Your task to perform on an android device: turn on priority inbox in the gmail app Image 0: 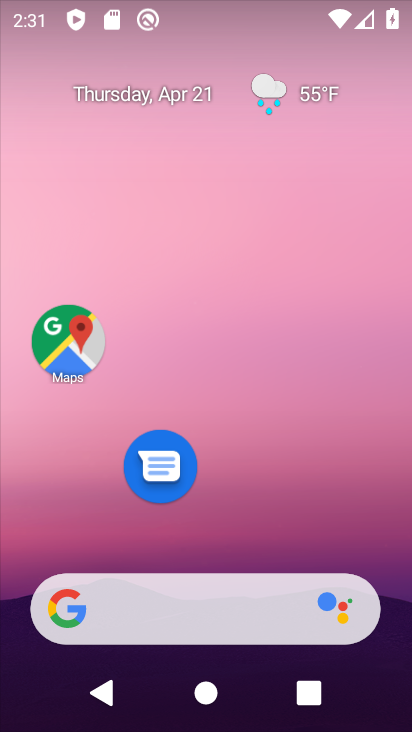
Step 0: drag from (306, 544) to (269, 64)
Your task to perform on an android device: turn on priority inbox in the gmail app Image 1: 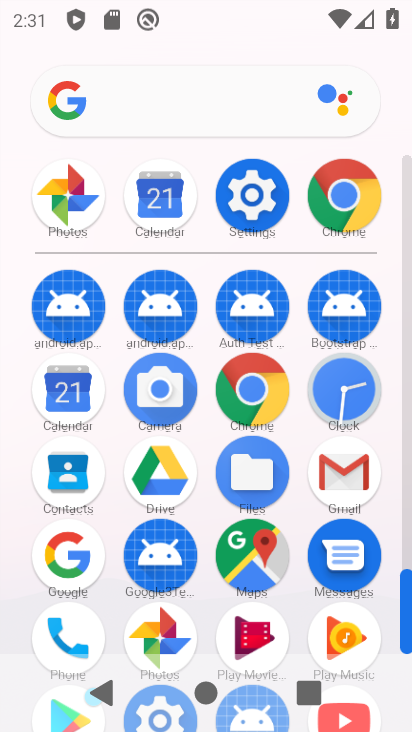
Step 1: click (350, 477)
Your task to perform on an android device: turn on priority inbox in the gmail app Image 2: 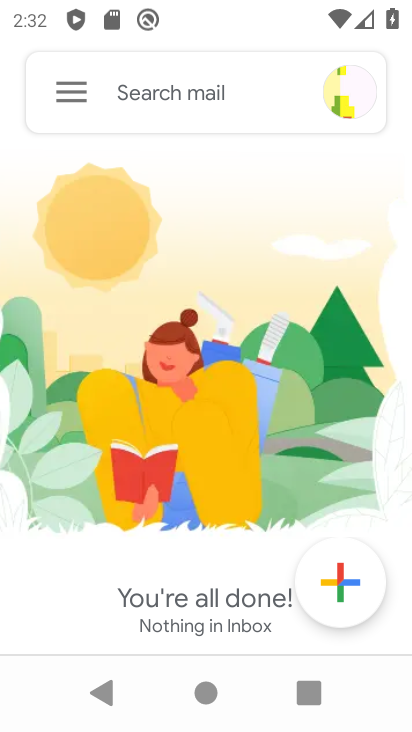
Step 2: click (55, 95)
Your task to perform on an android device: turn on priority inbox in the gmail app Image 3: 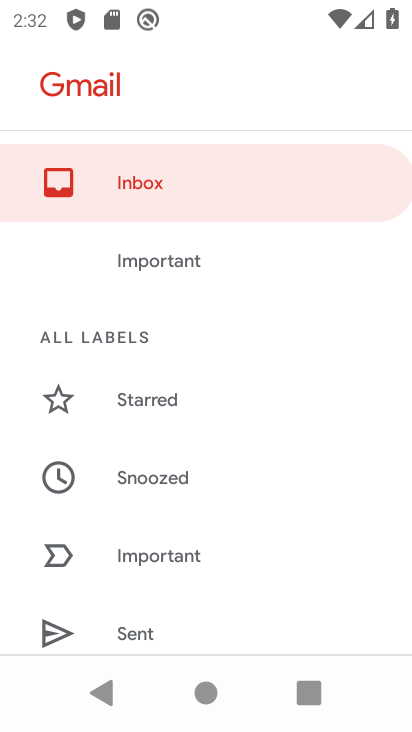
Step 3: drag from (230, 613) to (194, 66)
Your task to perform on an android device: turn on priority inbox in the gmail app Image 4: 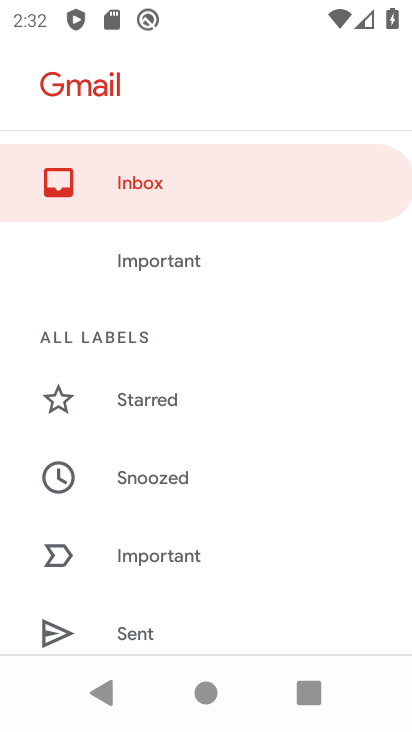
Step 4: drag from (265, 610) to (267, 199)
Your task to perform on an android device: turn on priority inbox in the gmail app Image 5: 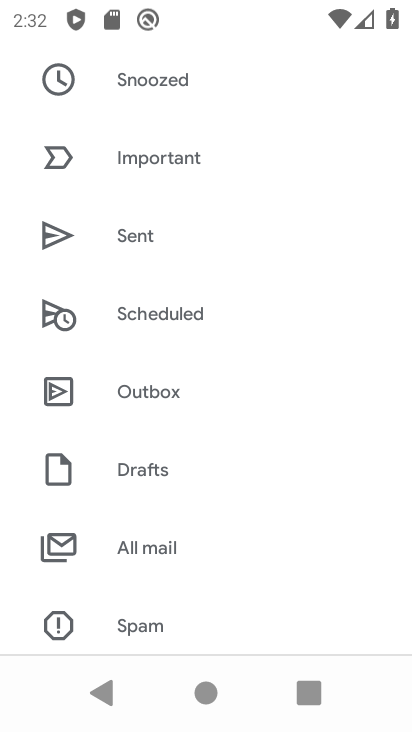
Step 5: drag from (283, 626) to (277, 72)
Your task to perform on an android device: turn on priority inbox in the gmail app Image 6: 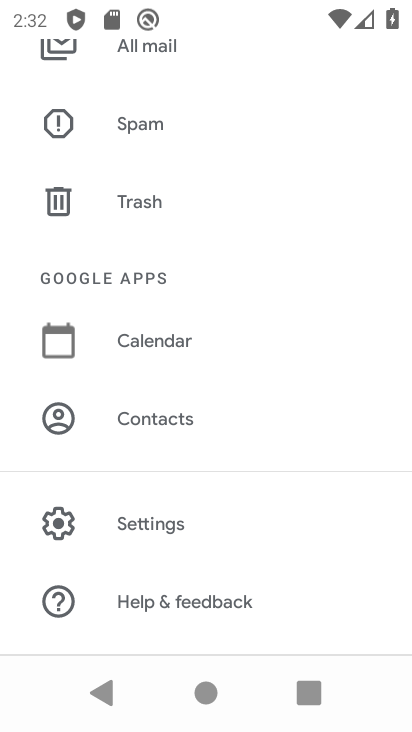
Step 6: click (146, 525)
Your task to perform on an android device: turn on priority inbox in the gmail app Image 7: 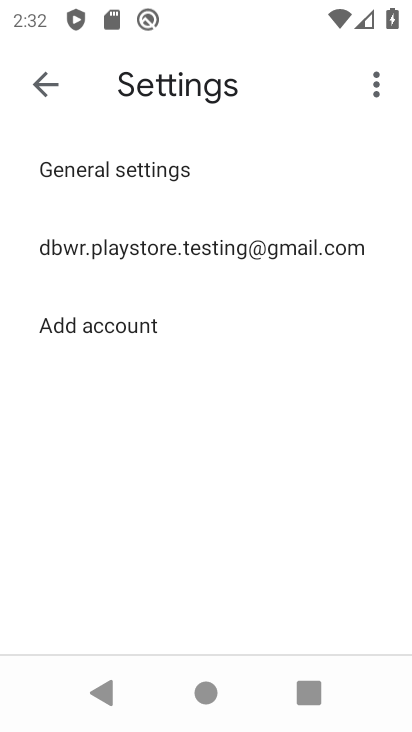
Step 7: click (137, 233)
Your task to perform on an android device: turn on priority inbox in the gmail app Image 8: 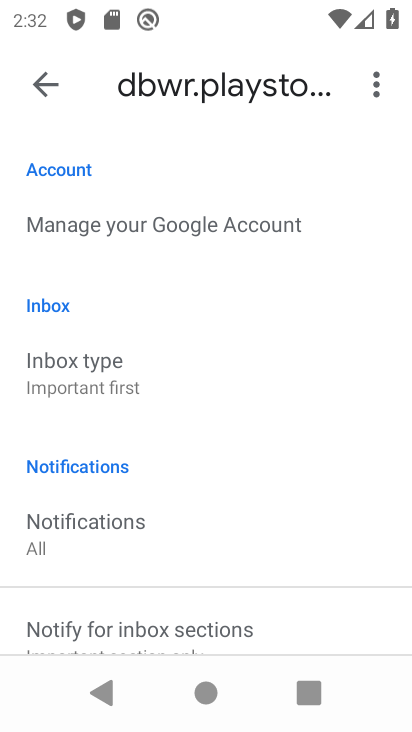
Step 8: click (106, 376)
Your task to perform on an android device: turn on priority inbox in the gmail app Image 9: 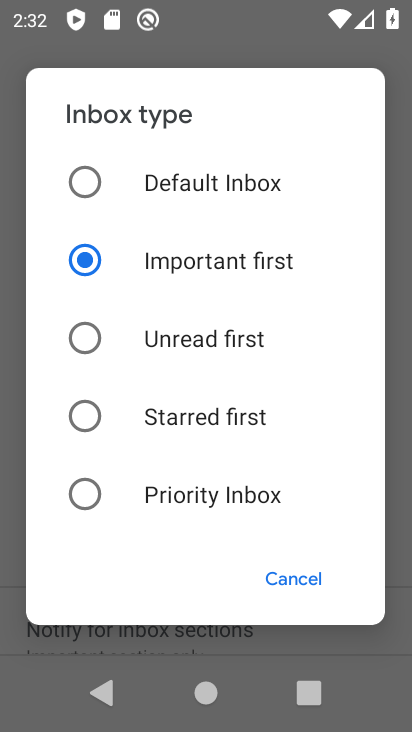
Step 9: click (93, 493)
Your task to perform on an android device: turn on priority inbox in the gmail app Image 10: 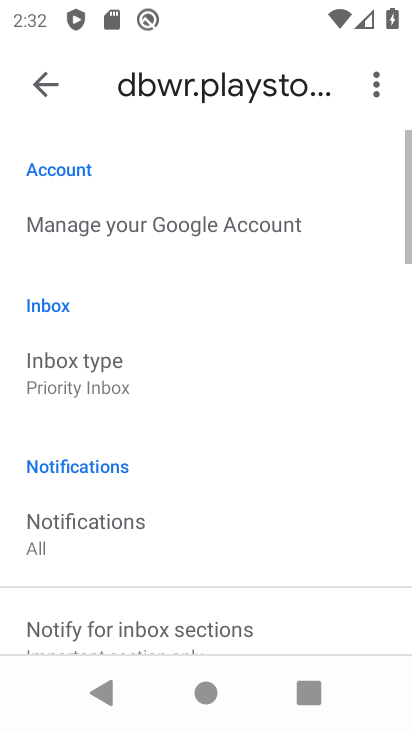
Step 10: task complete